Your task to perform on an android device: toggle notification dots Image 0: 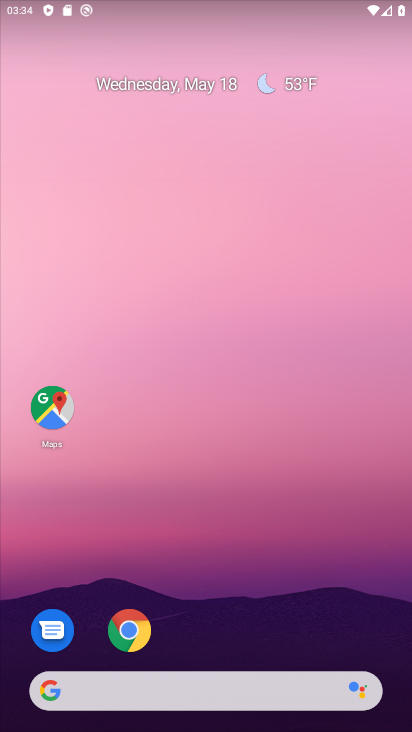
Step 0: drag from (230, 714) to (230, 129)
Your task to perform on an android device: toggle notification dots Image 1: 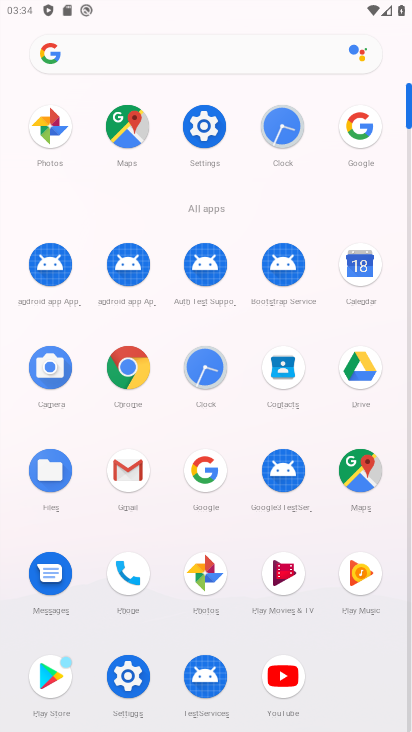
Step 1: click (203, 133)
Your task to perform on an android device: toggle notification dots Image 2: 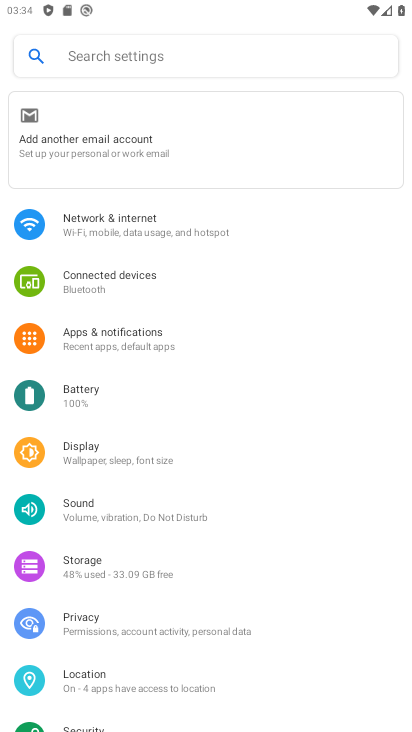
Step 2: click (122, 335)
Your task to perform on an android device: toggle notification dots Image 3: 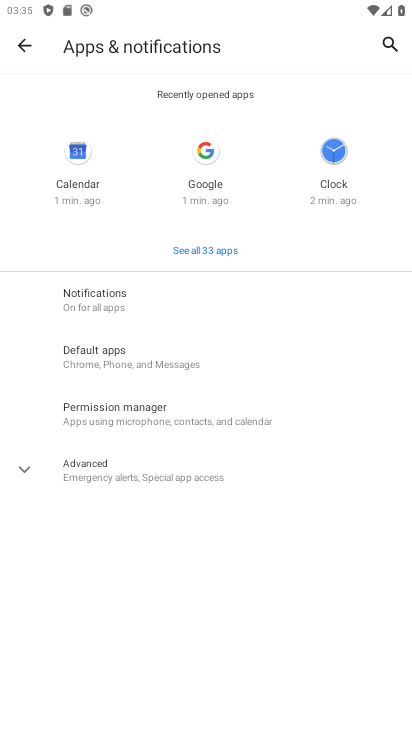
Step 3: click (99, 297)
Your task to perform on an android device: toggle notification dots Image 4: 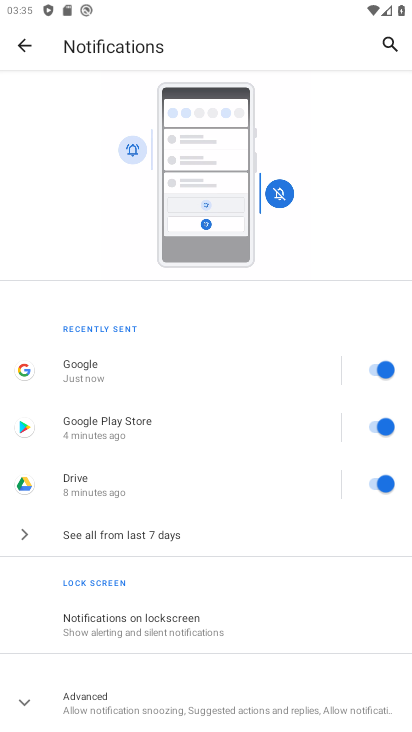
Step 4: drag from (202, 645) to (206, 275)
Your task to perform on an android device: toggle notification dots Image 5: 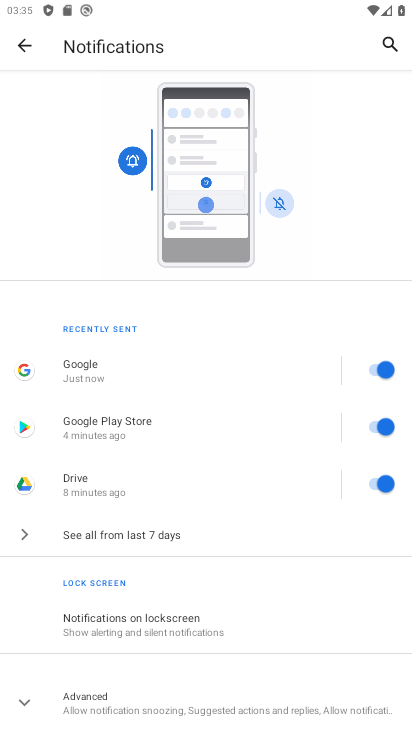
Step 5: click (155, 701)
Your task to perform on an android device: toggle notification dots Image 6: 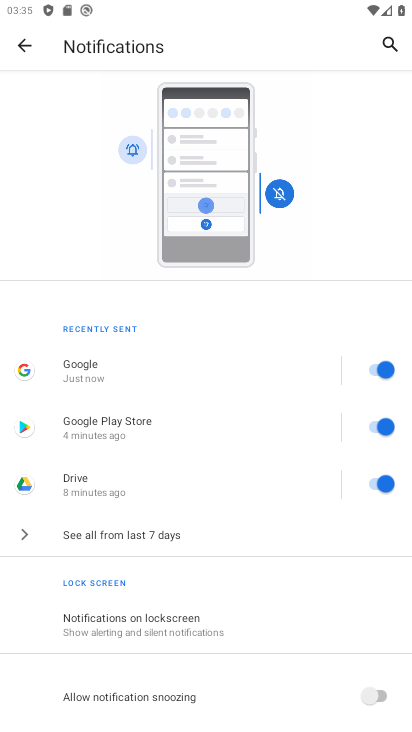
Step 6: drag from (205, 698) to (215, 487)
Your task to perform on an android device: toggle notification dots Image 7: 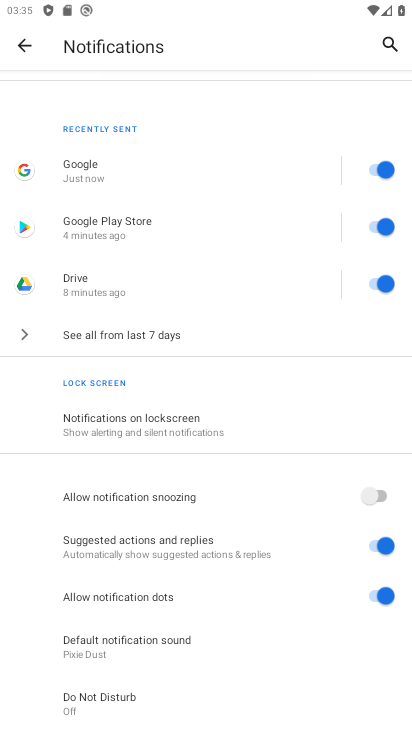
Step 7: click (371, 594)
Your task to perform on an android device: toggle notification dots Image 8: 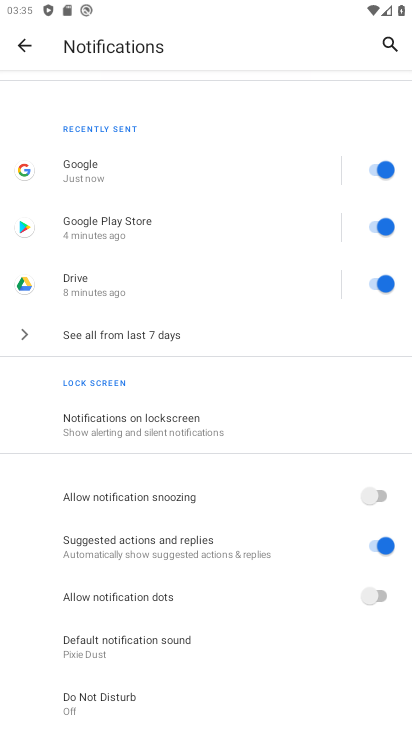
Step 8: task complete